Your task to perform on an android device: Open calendar and show me the second week of next month Image 0: 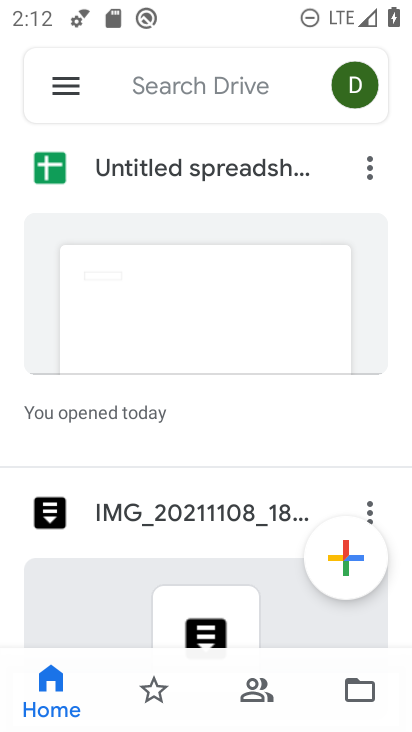
Step 0: drag from (244, 688) to (256, 539)
Your task to perform on an android device: Open calendar and show me the second week of next month Image 1: 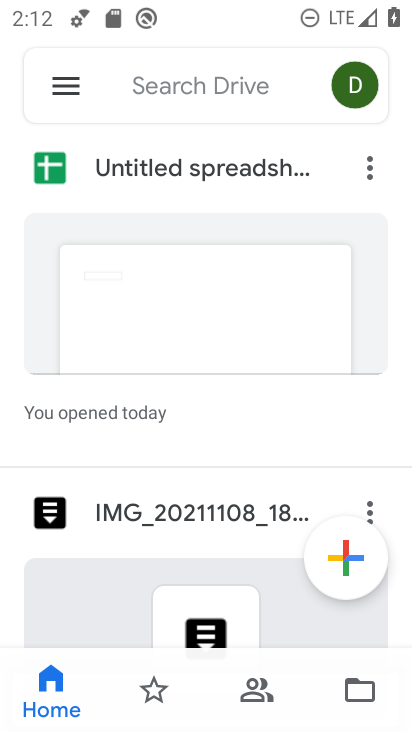
Step 1: press home button
Your task to perform on an android device: Open calendar and show me the second week of next month Image 2: 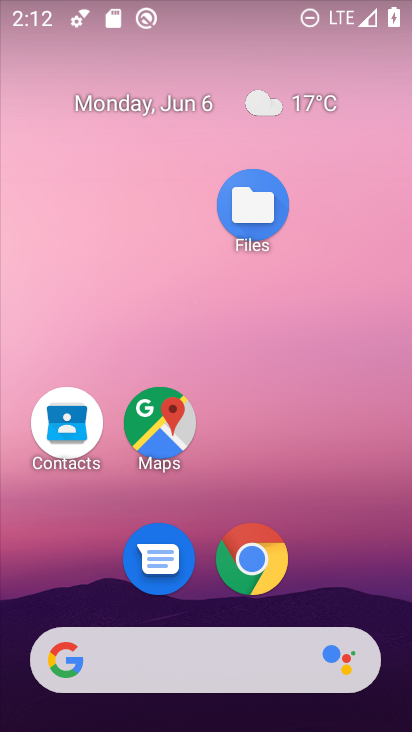
Step 2: drag from (189, 643) to (300, 41)
Your task to perform on an android device: Open calendar and show me the second week of next month Image 3: 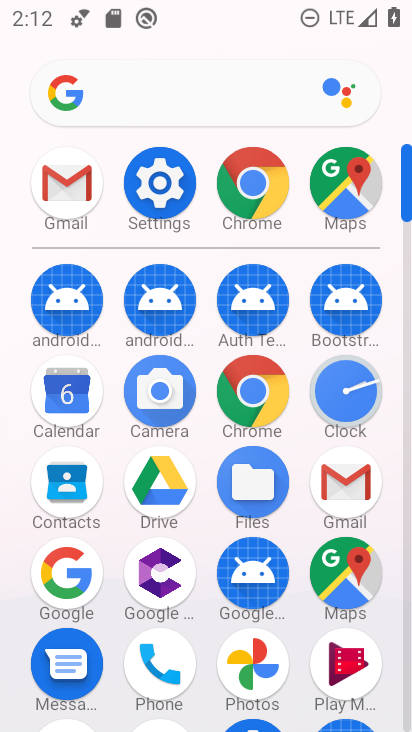
Step 3: click (85, 396)
Your task to perform on an android device: Open calendar and show me the second week of next month Image 4: 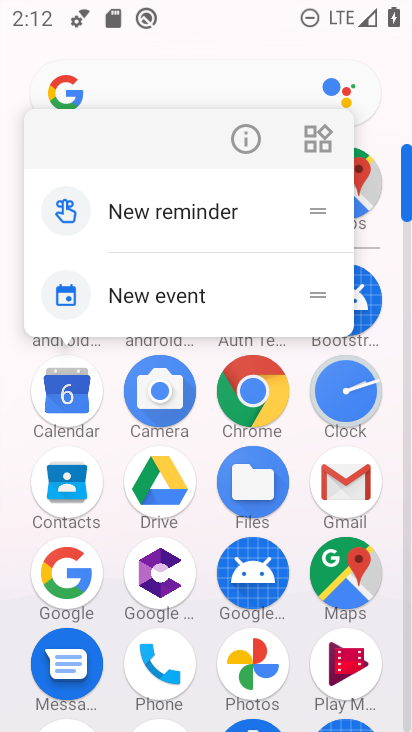
Step 4: click (75, 429)
Your task to perform on an android device: Open calendar and show me the second week of next month Image 5: 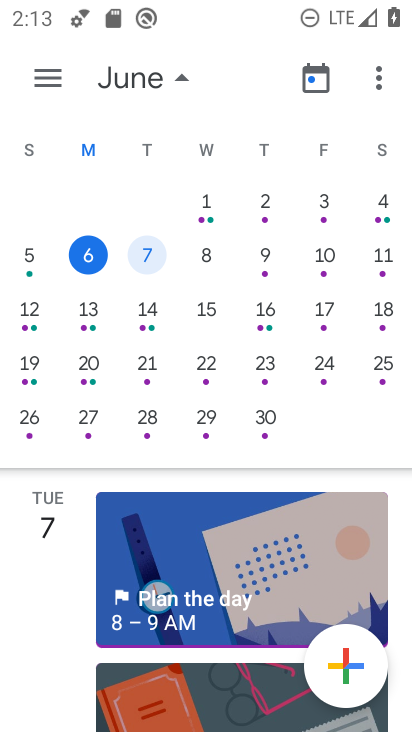
Step 5: click (27, 309)
Your task to perform on an android device: Open calendar and show me the second week of next month Image 6: 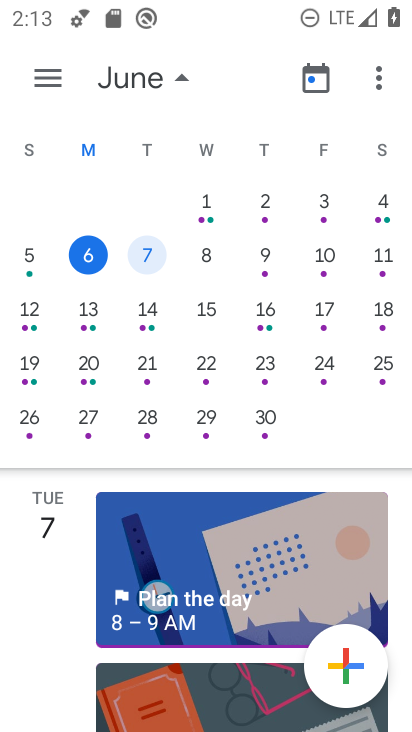
Step 6: drag from (360, 350) to (5, 363)
Your task to perform on an android device: Open calendar and show me the second week of next month Image 7: 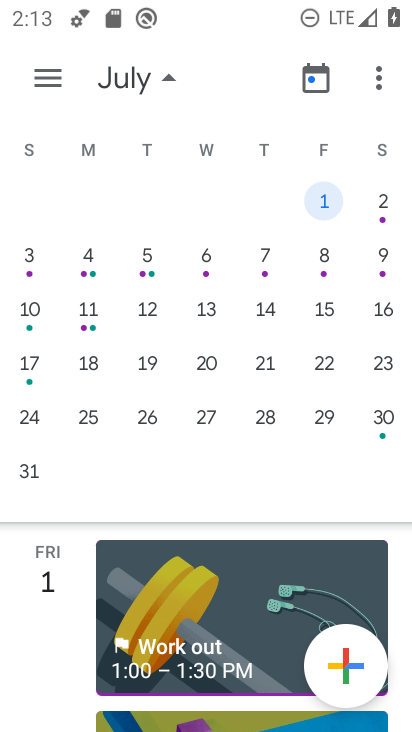
Step 7: click (27, 258)
Your task to perform on an android device: Open calendar and show me the second week of next month Image 8: 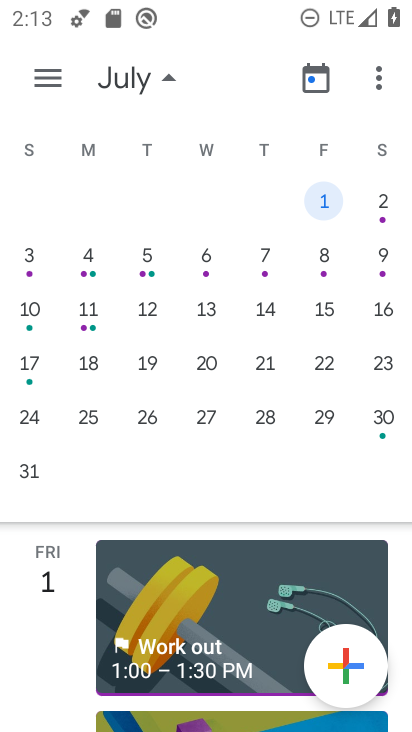
Step 8: click (27, 269)
Your task to perform on an android device: Open calendar and show me the second week of next month Image 9: 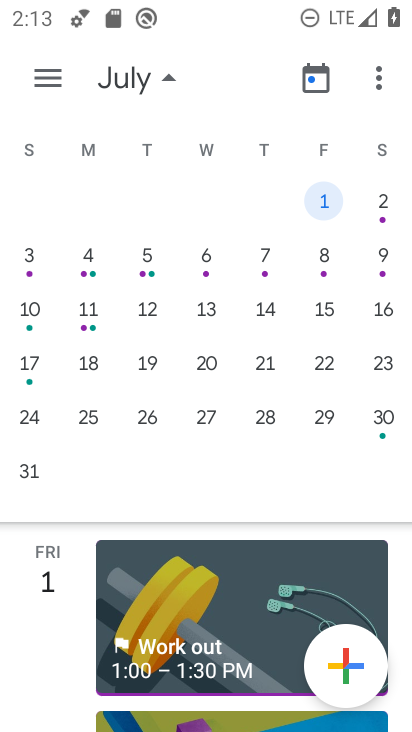
Step 9: click (40, 275)
Your task to perform on an android device: Open calendar and show me the second week of next month Image 10: 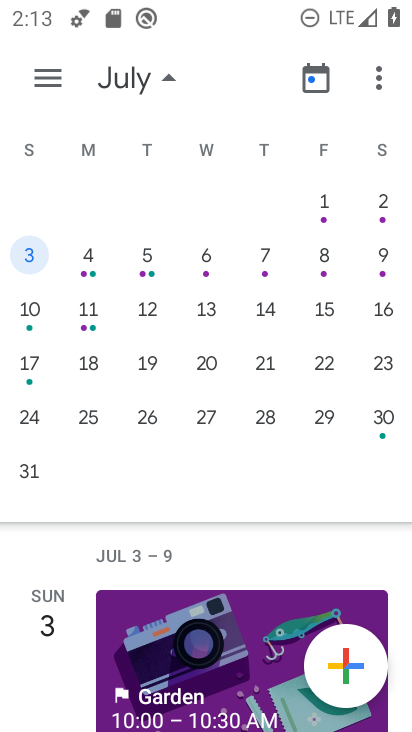
Step 10: task complete